Your task to perform on an android device: find photos in the google photos app Image 0: 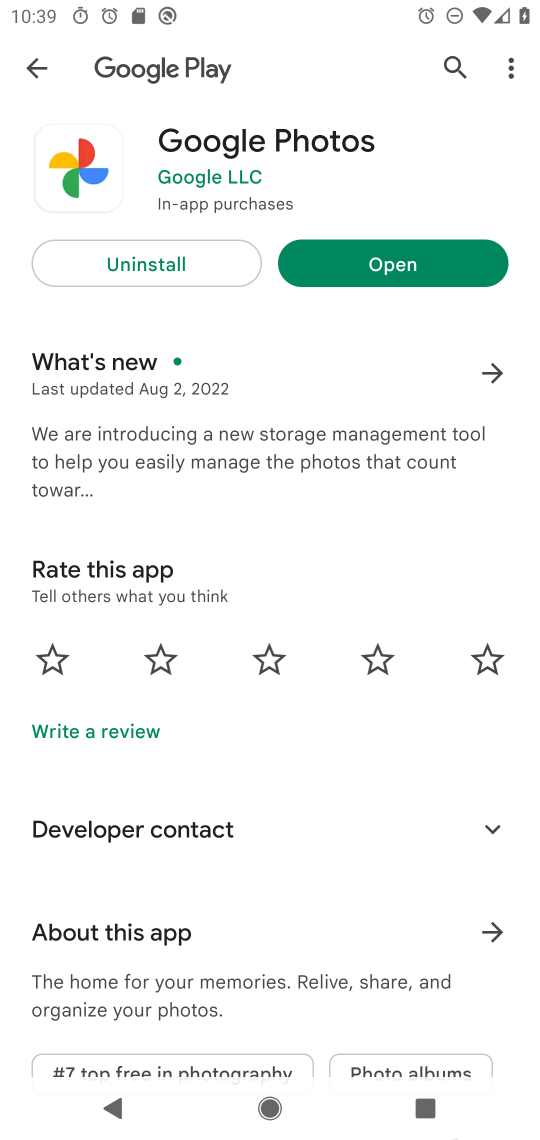
Step 0: click (376, 258)
Your task to perform on an android device: find photos in the google photos app Image 1: 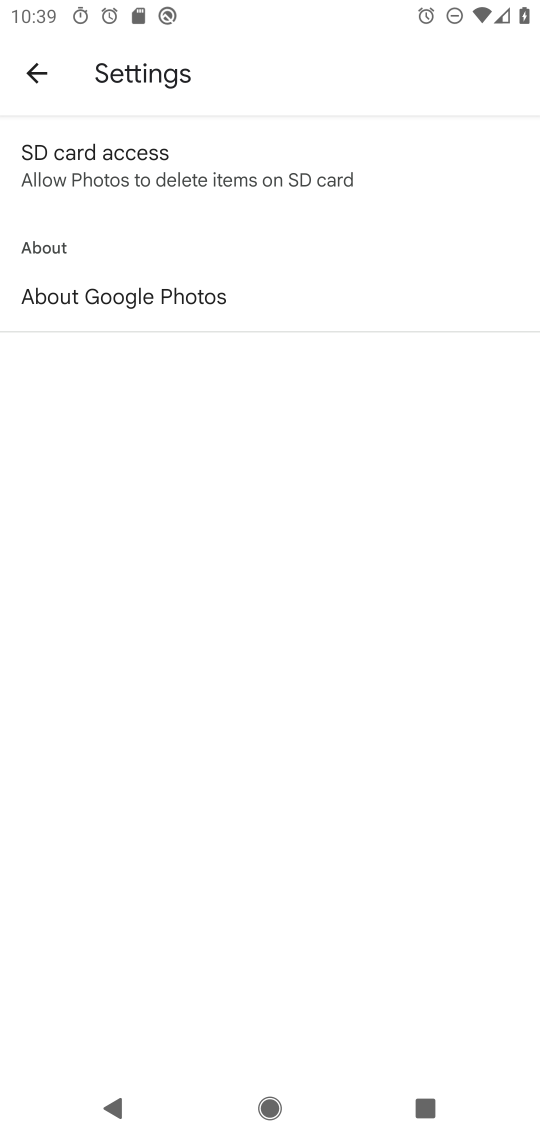
Step 1: click (41, 64)
Your task to perform on an android device: find photos in the google photos app Image 2: 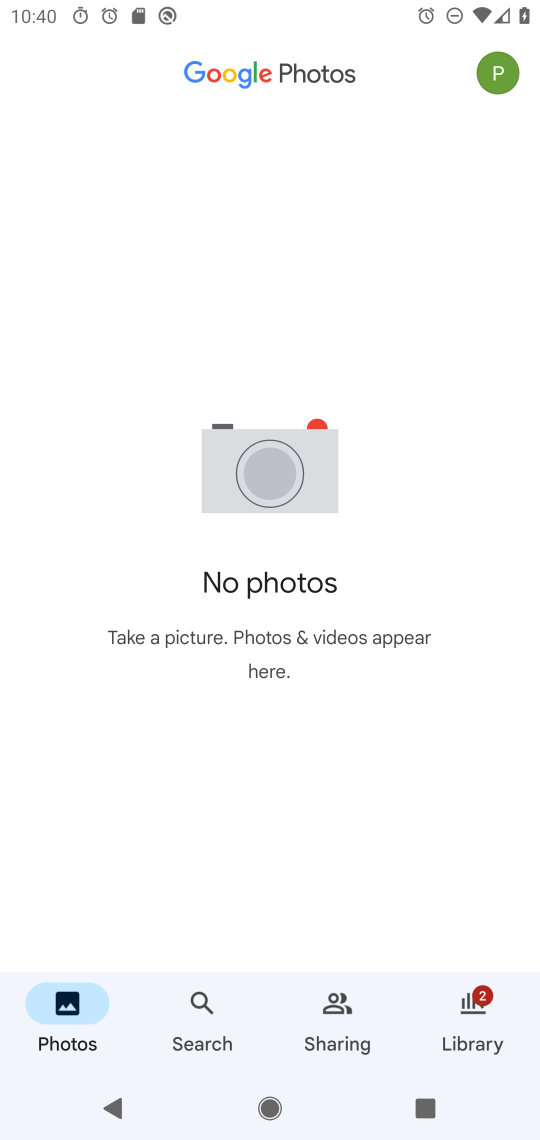
Step 2: click (187, 998)
Your task to perform on an android device: find photos in the google photos app Image 3: 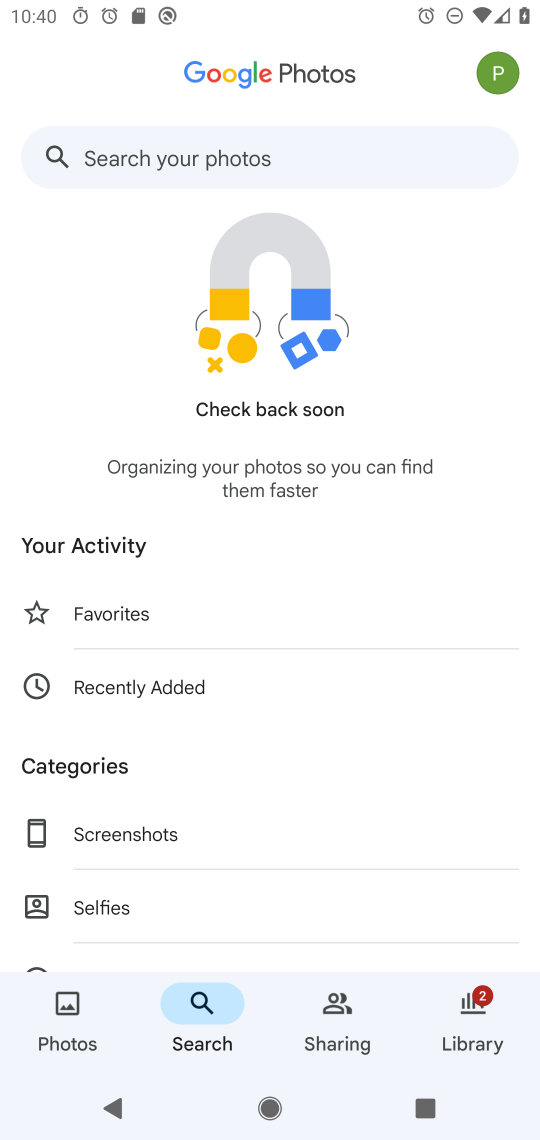
Step 3: click (151, 838)
Your task to perform on an android device: find photos in the google photos app Image 4: 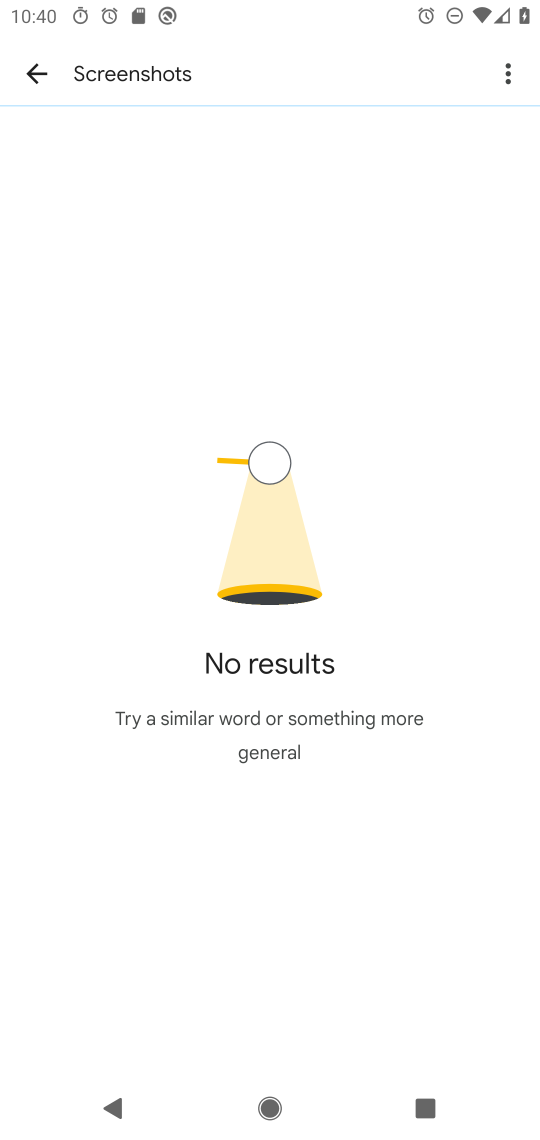
Step 4: press back button
Your task to perform on an android device: find photos in the google photos app Image 5: 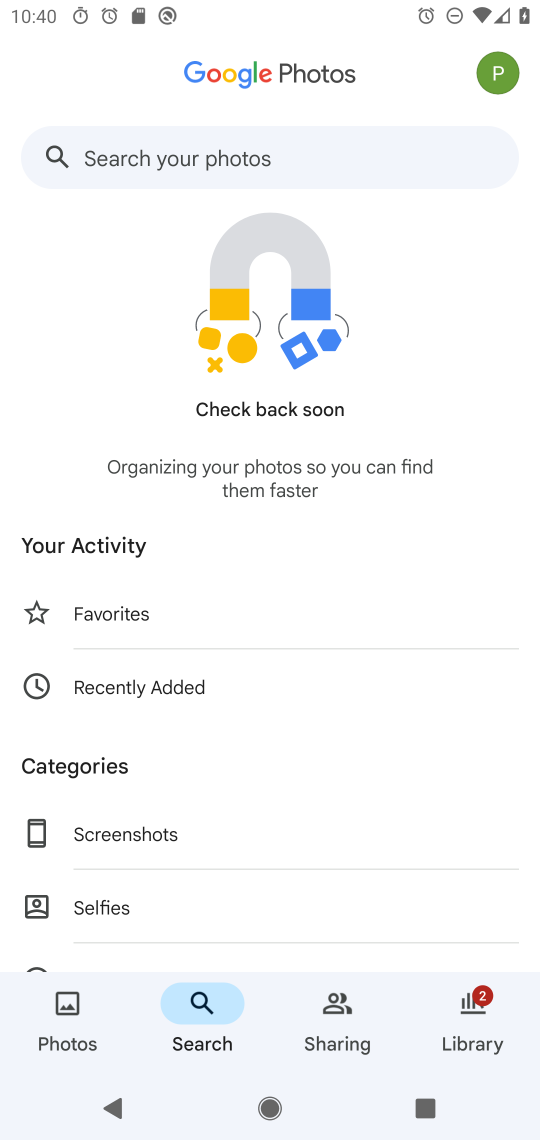
Step 5: click (110, 901)
Your task to perform on an android device: find photos in the google photos app Image 6: 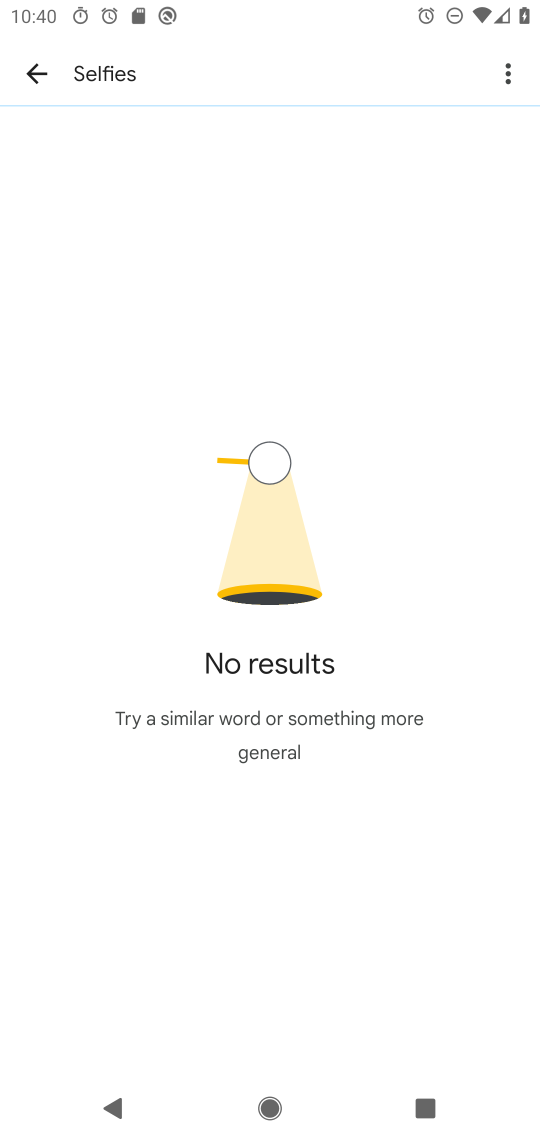
Step 6: task complete